Your task to perform on an android device: Go to Google Image 0: 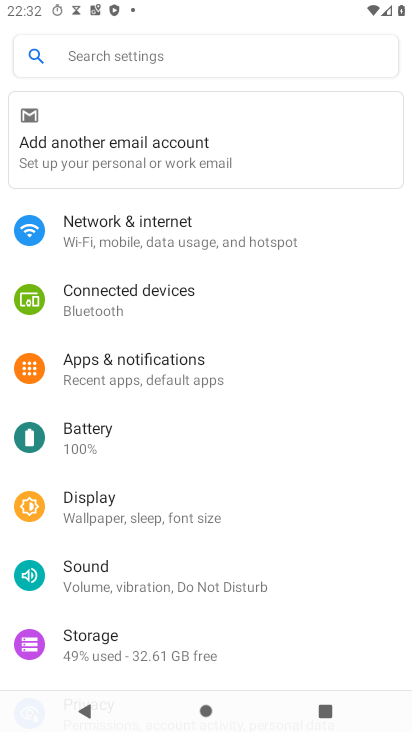
Step 0: press home button
Your task to perform on an android device: Go to Google Image 1: 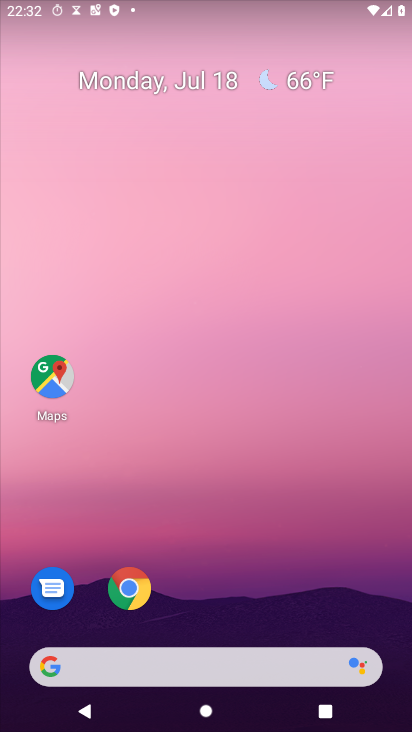
Step 1: drag from (159, 665) to (312, 66)
Your task to perform on an android device: Go to Google Image 2: 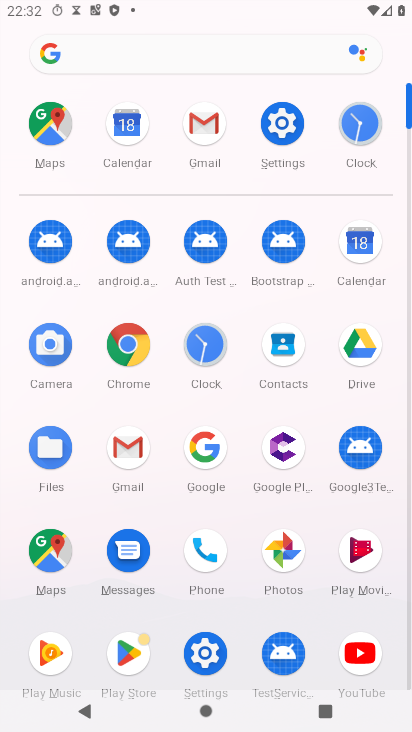
Step 2: click (208, 454)
Your task to perform on an android device: Go to Google Image 3: 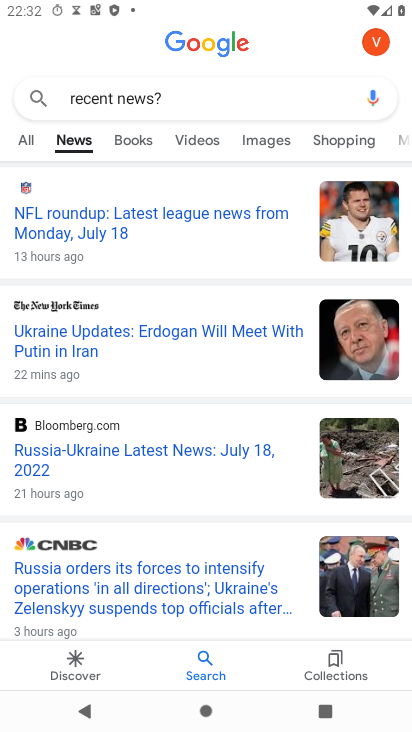
Step 3: task complete